Your task to perform on an android device: See recent photos Image 0: 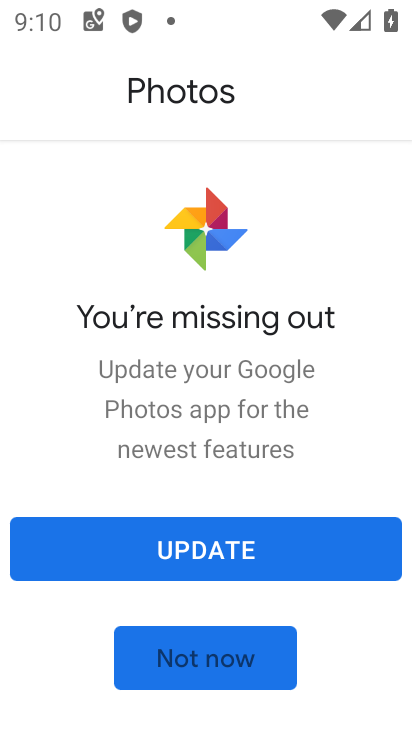
Step 0: press home button
Your task to perform on an android device: See recent photos Image 1: 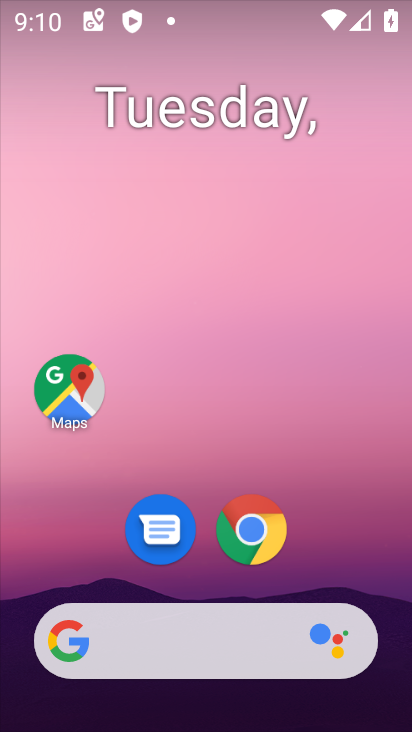
Step 1: drag from (291, 581) to (196, 70)
Your task to perform on an android device: See recent photos Image 2: 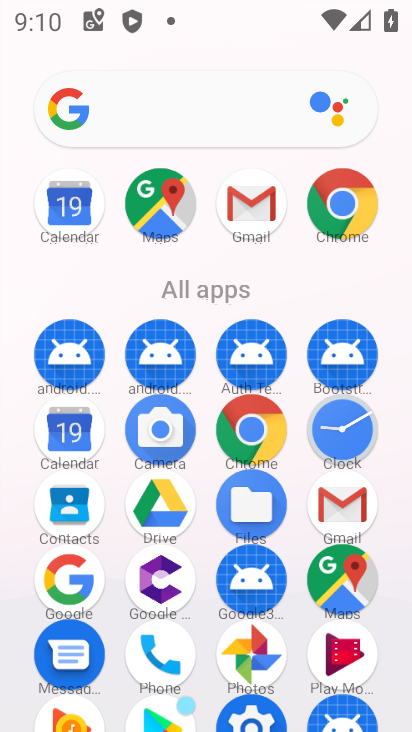
Step 2: click (240, 650)
Your task to perform on an android device: See recent photos Image 3: 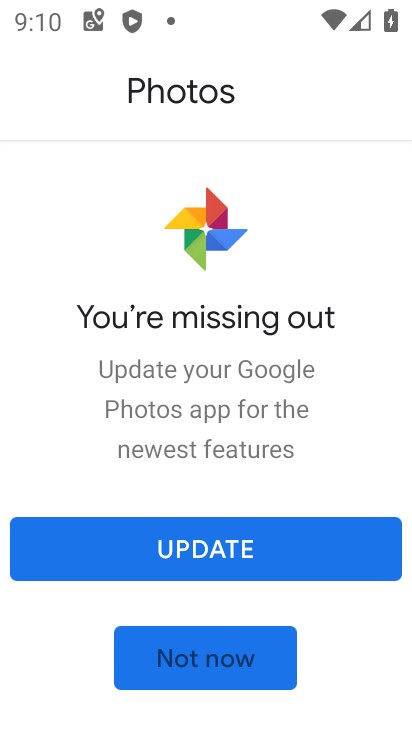
Step 3: click (235, 552)
Your task to perform on an android device: See recent photos Image 4: 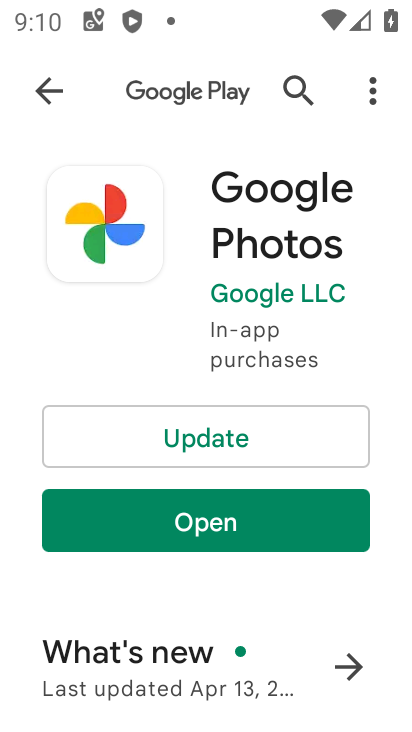
Step 4: click (267, 418)
Your task to perform on an android device: See recent photos Image 5: 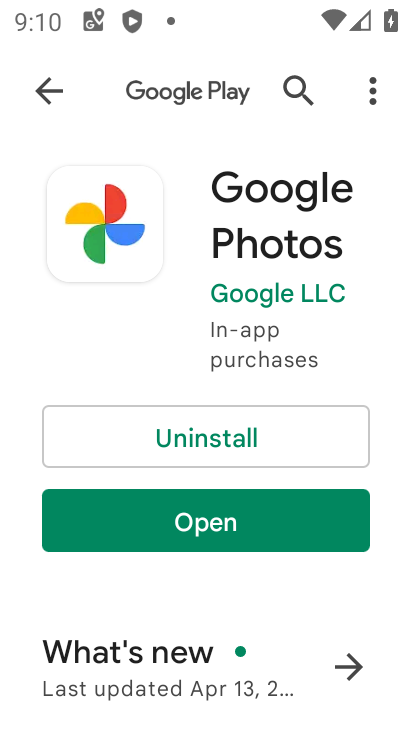
Step 5: click (207, 521)
Your task to perform on an android device: See recent photos Image 6: 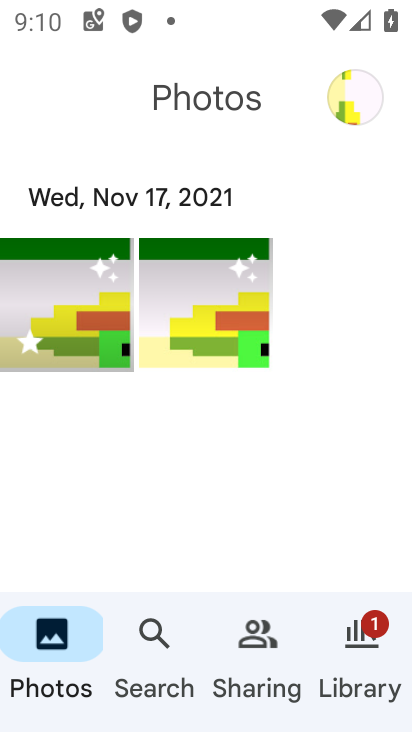
Step 6: click (135, 334)
Your task to perform on an android device: See recent photos Image 7: 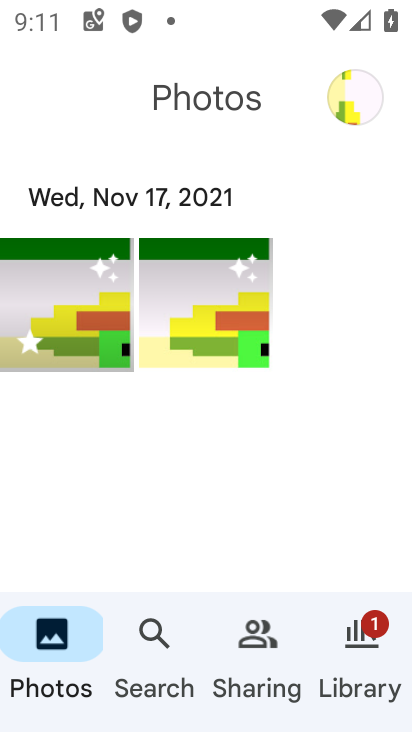
Step 7: task complete